Your task to perform on an android device: Open CNN.com Image 0: 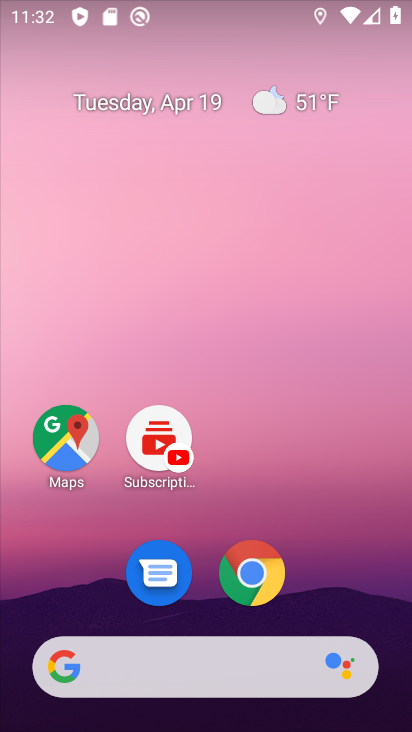
Step 0: press home button
Your task to perform on an android device: Open CNN.com Image 1: 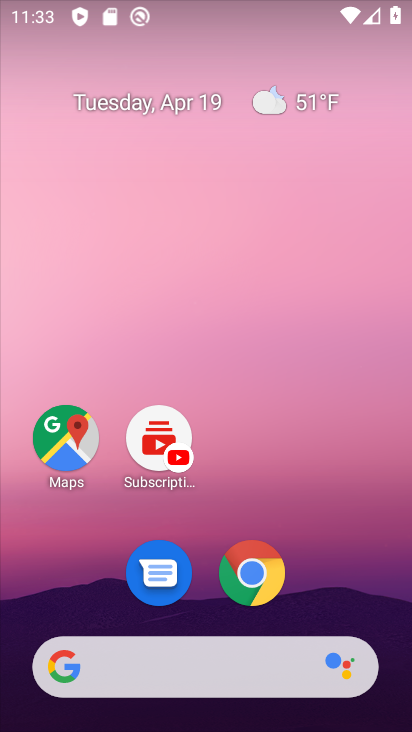
Step 1: click (250, 571)
Your task to perform on an android device: Open CNN.com Image 2: 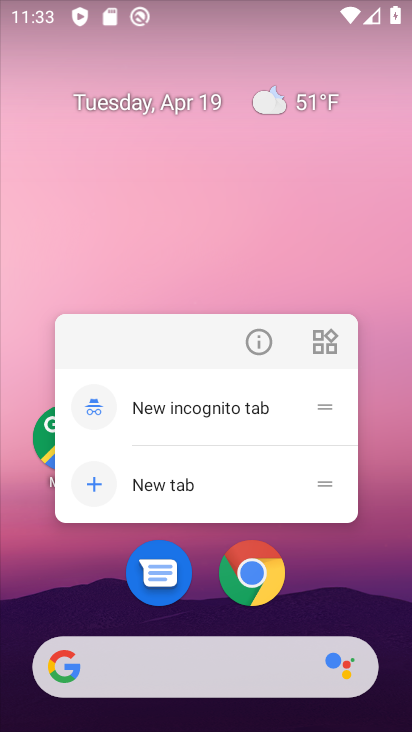
Step 2: click (250, 571)
Your task to perform on an android device: Open CNN.com Image 3: 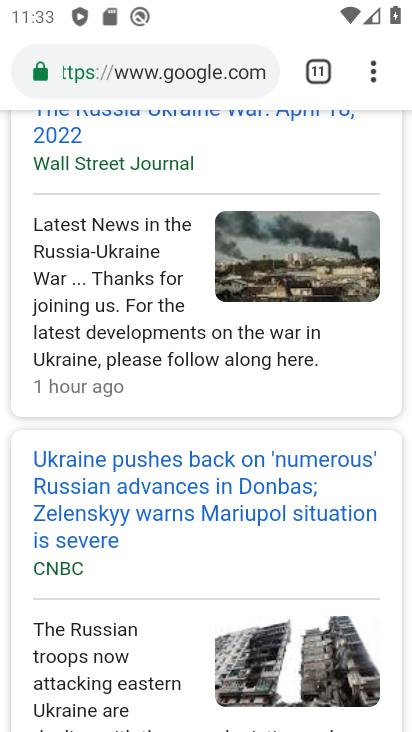
Step 3: click (324, 74)
Your task to perform on an android device: Open CNN.com Image 4: 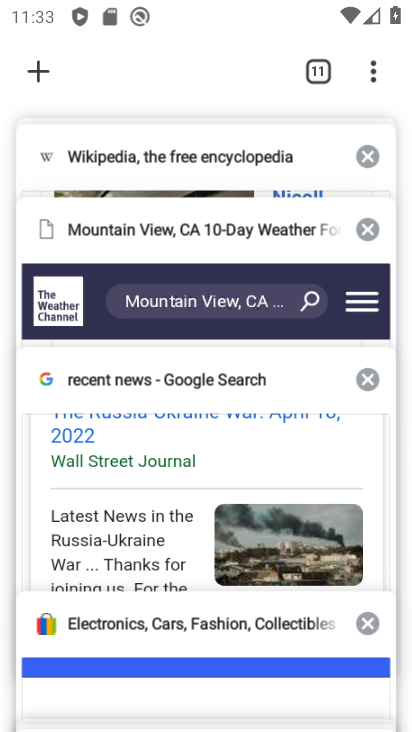
Step 4: drag from (197, 626) to (184, 151)
Your task to perform on an android device: Open CNN.com Image 5: 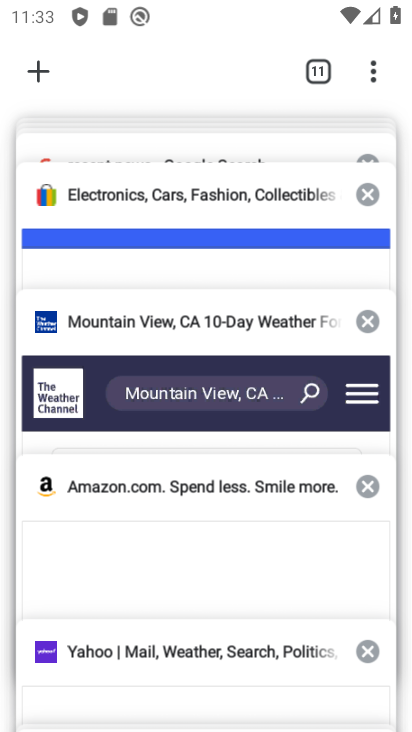
Step 5: drag from (160, 593) to (133, 180)
Your task to perform on an android device: Open CNN.com Image 6: 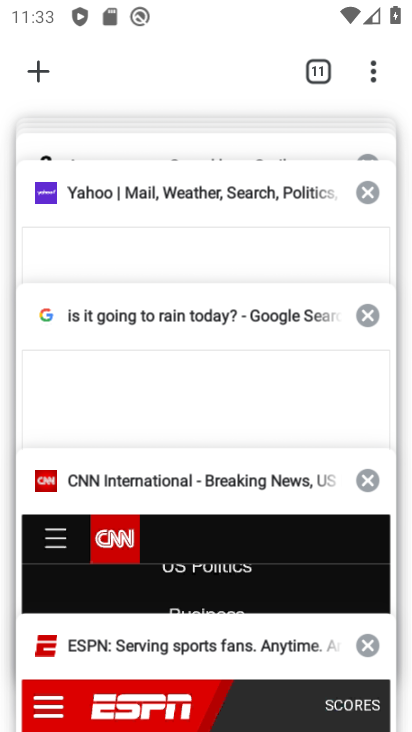
Step 6: click (151, 509)
Your task to perform on an android device: Open CNN.com Image 7: 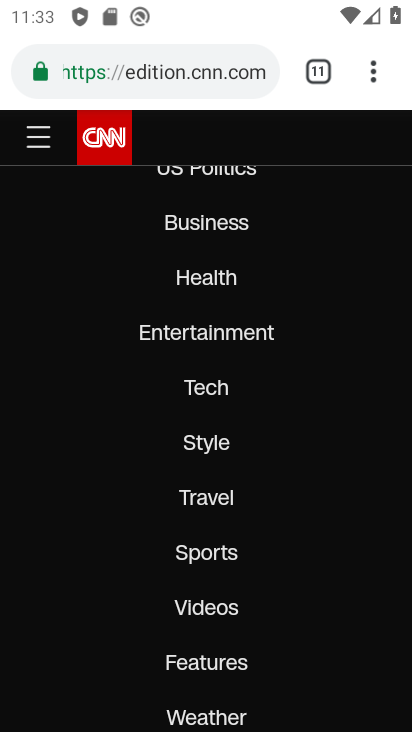
Step 7: task complete